Your task to perform on an android device: check the backup settings in the google photos Image 0: 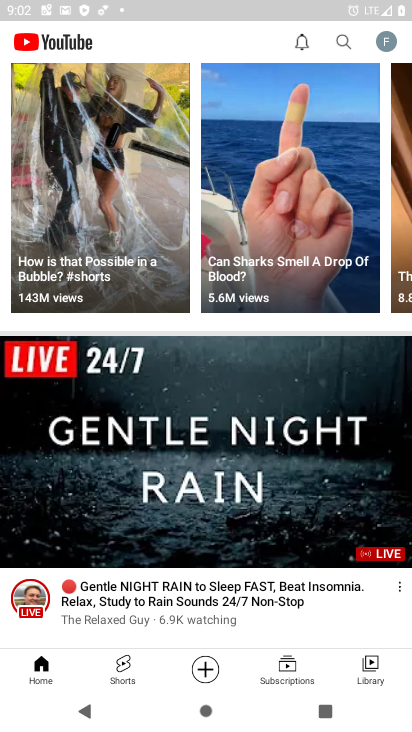
Step 0: press home button
Your task to perform on an android device: check the backup settings in the google photos Image 1: 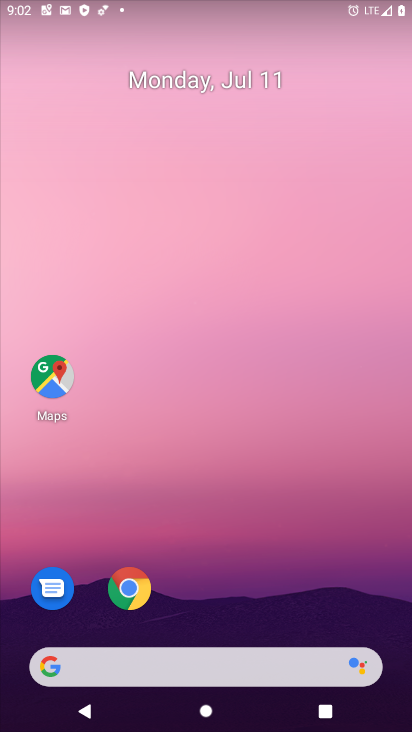
Step 1: drag from (163, 661) to (340, 71)
Your task to perform on an android device: check the backup settings in the google photos Image 2: 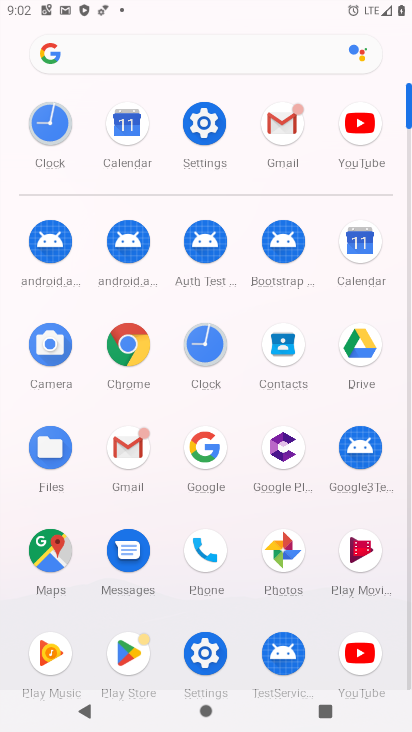
Step 2: click (281, 555)
Your task to perform on an android device: check the backup settings in the google photos Image 3: 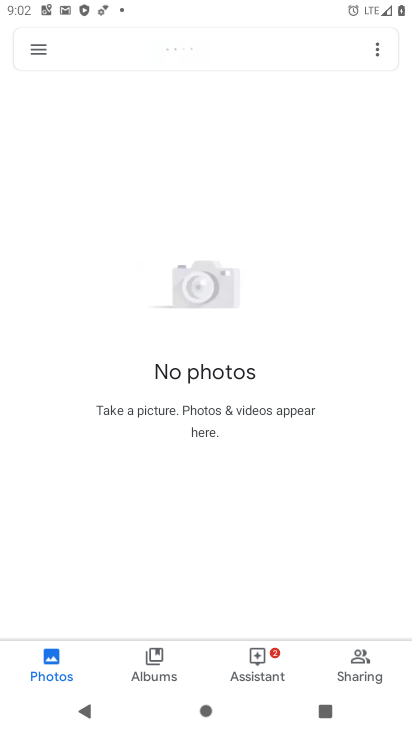
Step 3: click (36, 48)
Your task to perform on an android device: check the backup settings in the google photos Image 4: 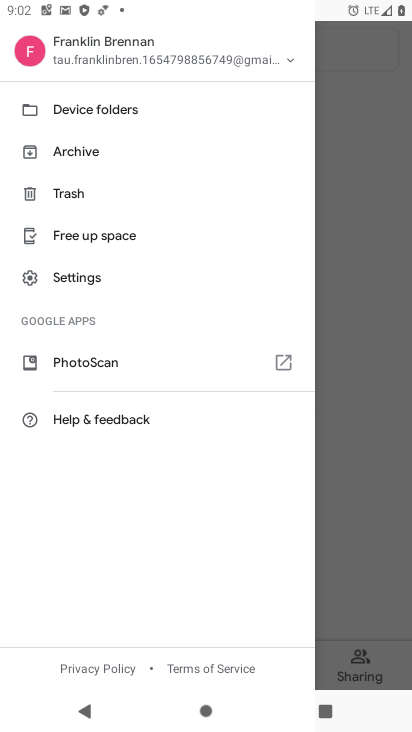
Step 4: click (82, 279)
Your task to perform on an android device: check the backup settings in the google photos Image 5: 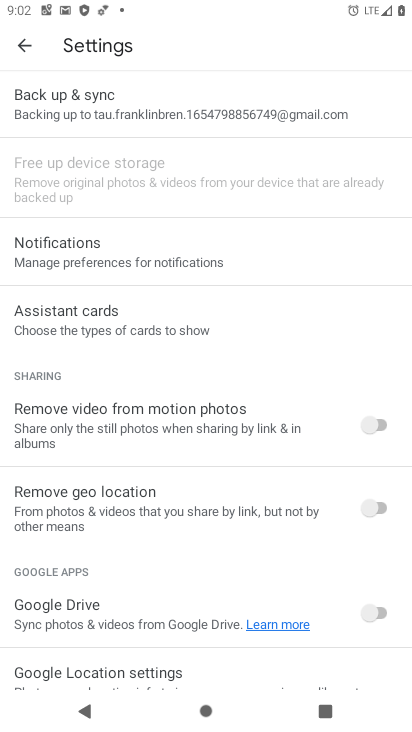
Step 5: click (200, 117)
Your task to perform on an android device: check the backup settings in the google photos Image 6: 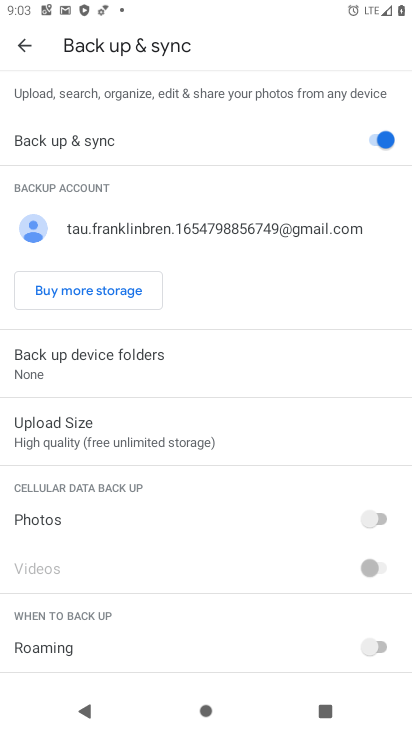
Step 6: task complete